Your task to perform on an android device: Search for flights from NYC to Sydney Image 0: 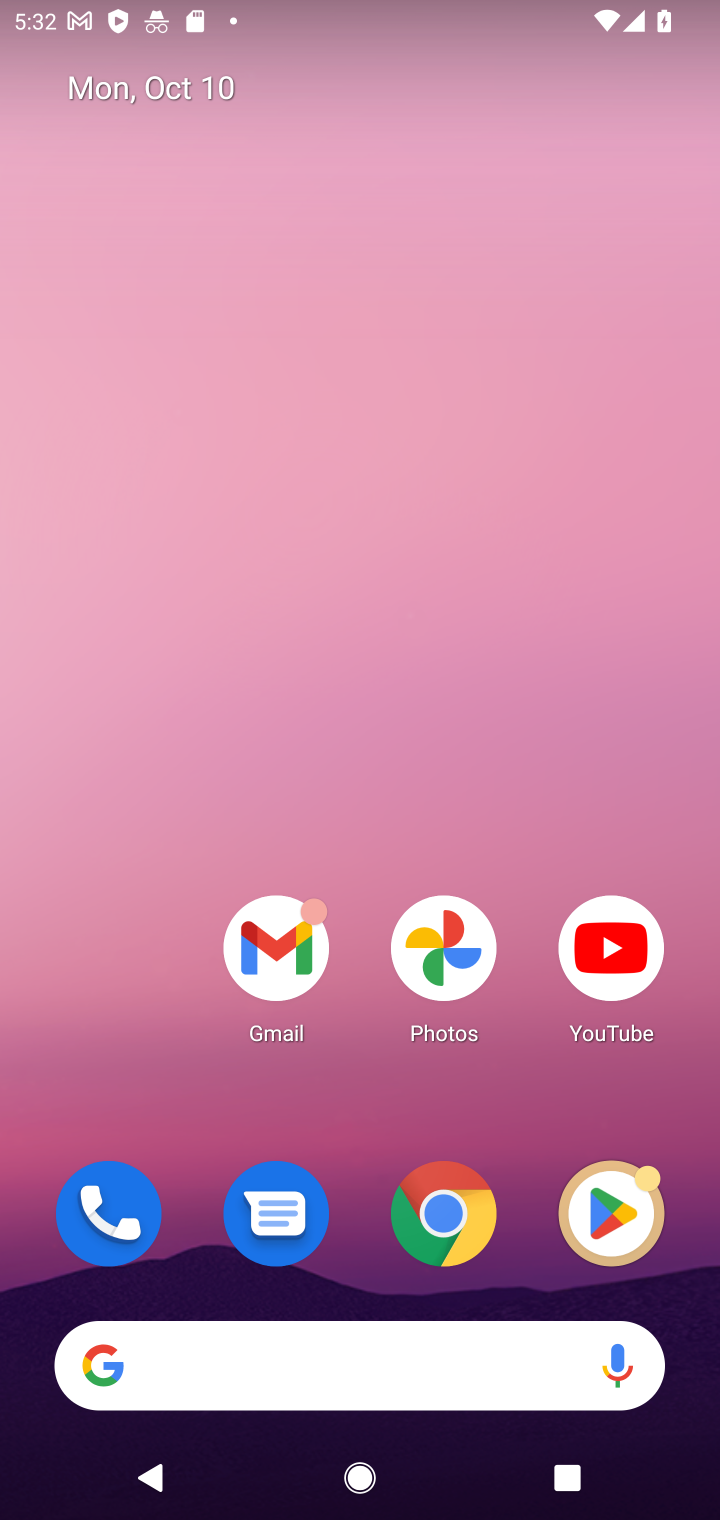
Step 0: click (317, 1355)
Your task to perform on an android device: Search for flights from NYC to Sydney Image 1: 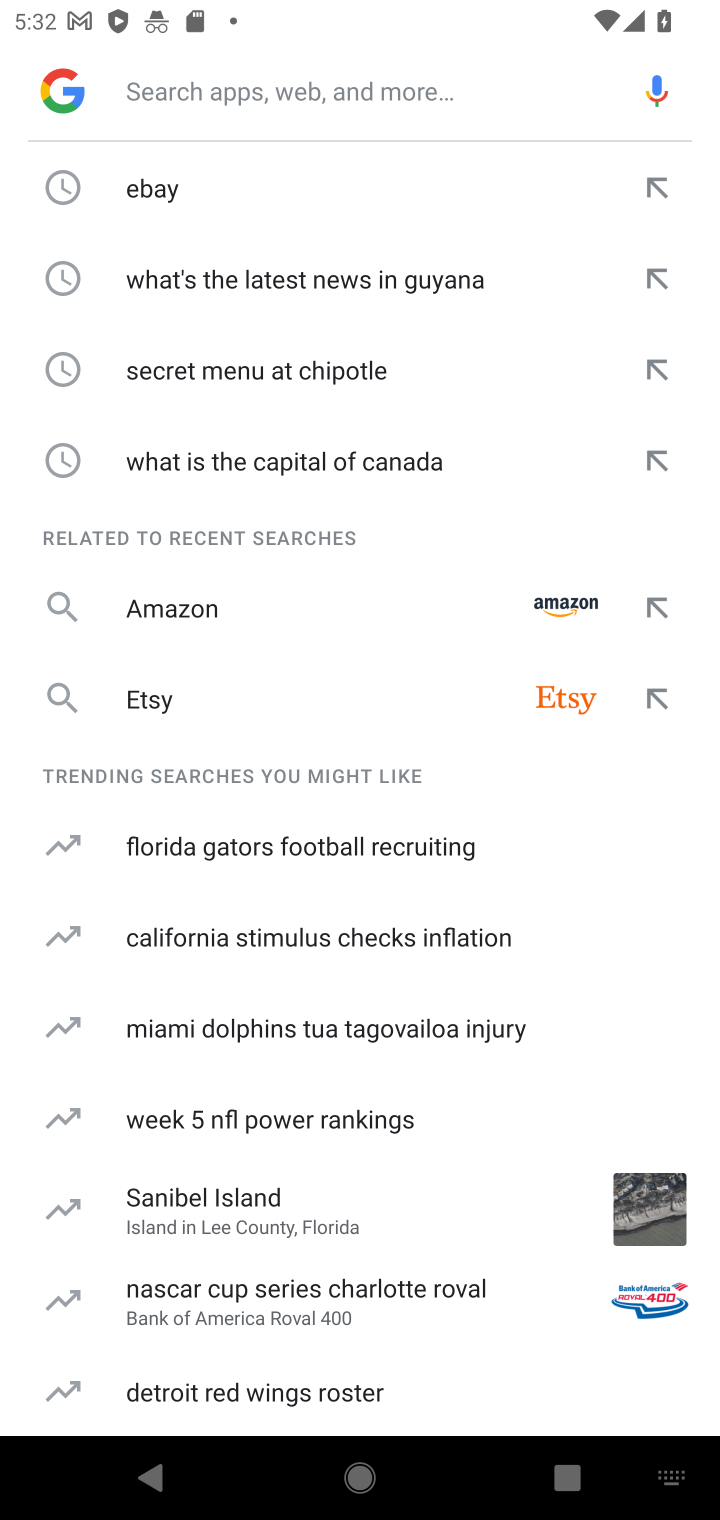
Step 1: click (281, 95)
Your task to perform on an android device: Search for flights from NYC to Sydney Image 2: 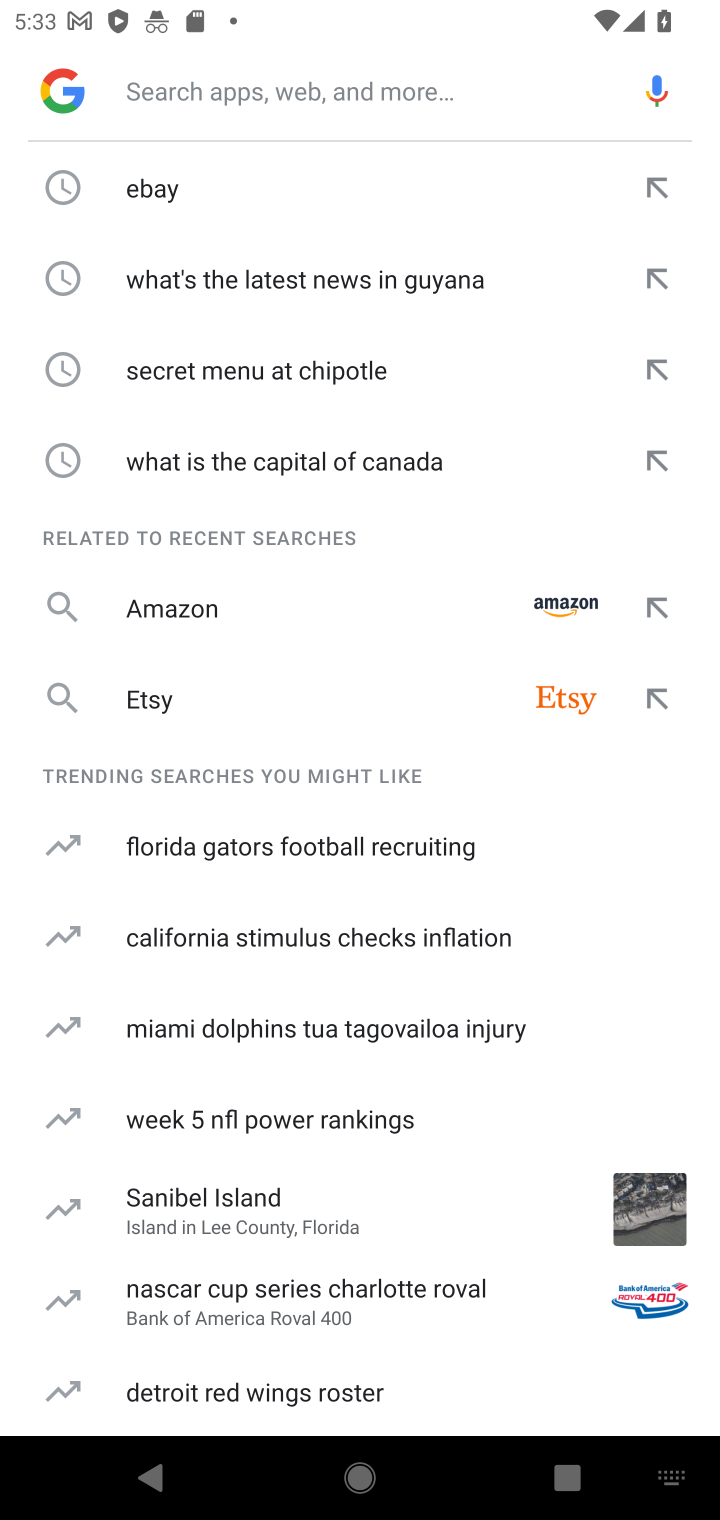
Step 2: type "flights from NYC to Sydney"
Your task to perform on an android device: Search for flights from NYC to Sydney Image 3: 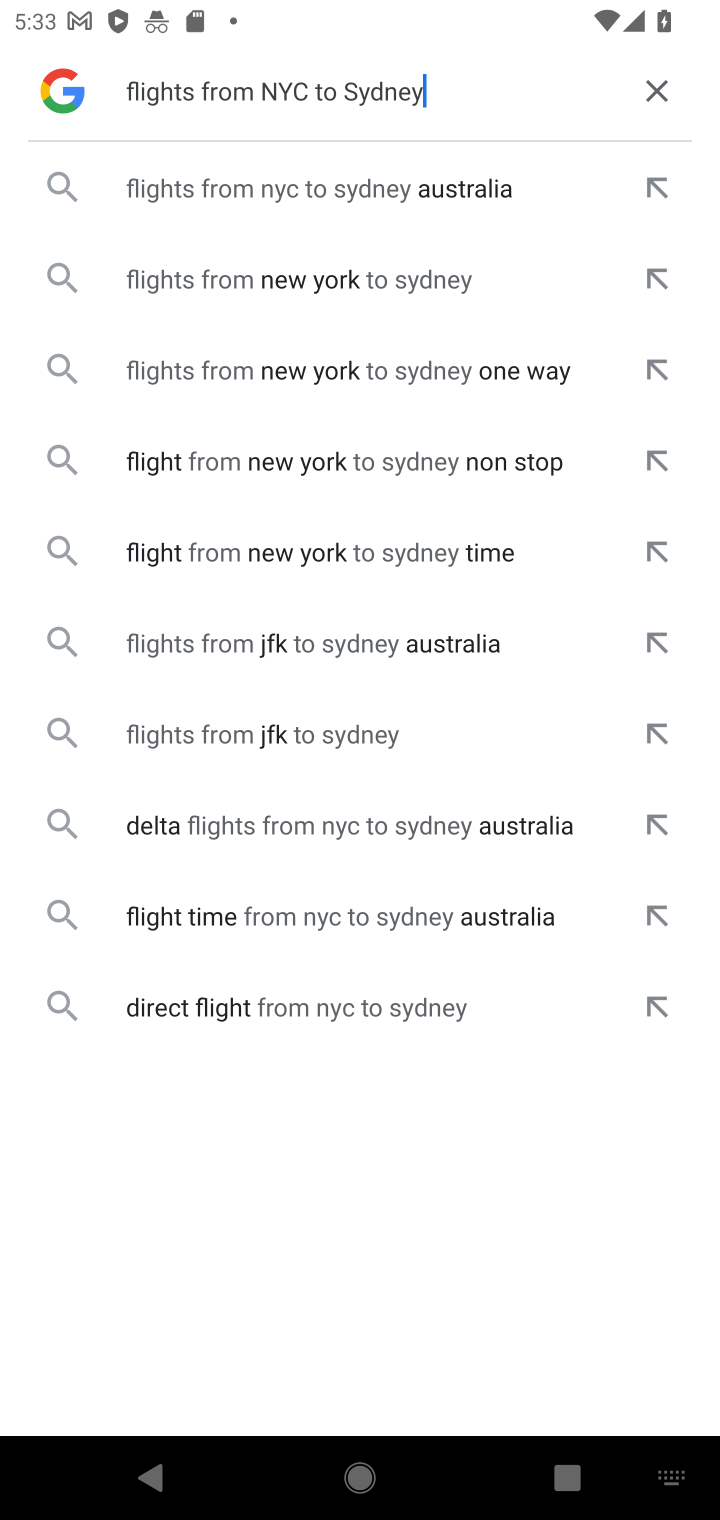
Step 3: click (331, 201)
Your task to perform on an android device: Search for flights from NYC to Sydney Image 4: 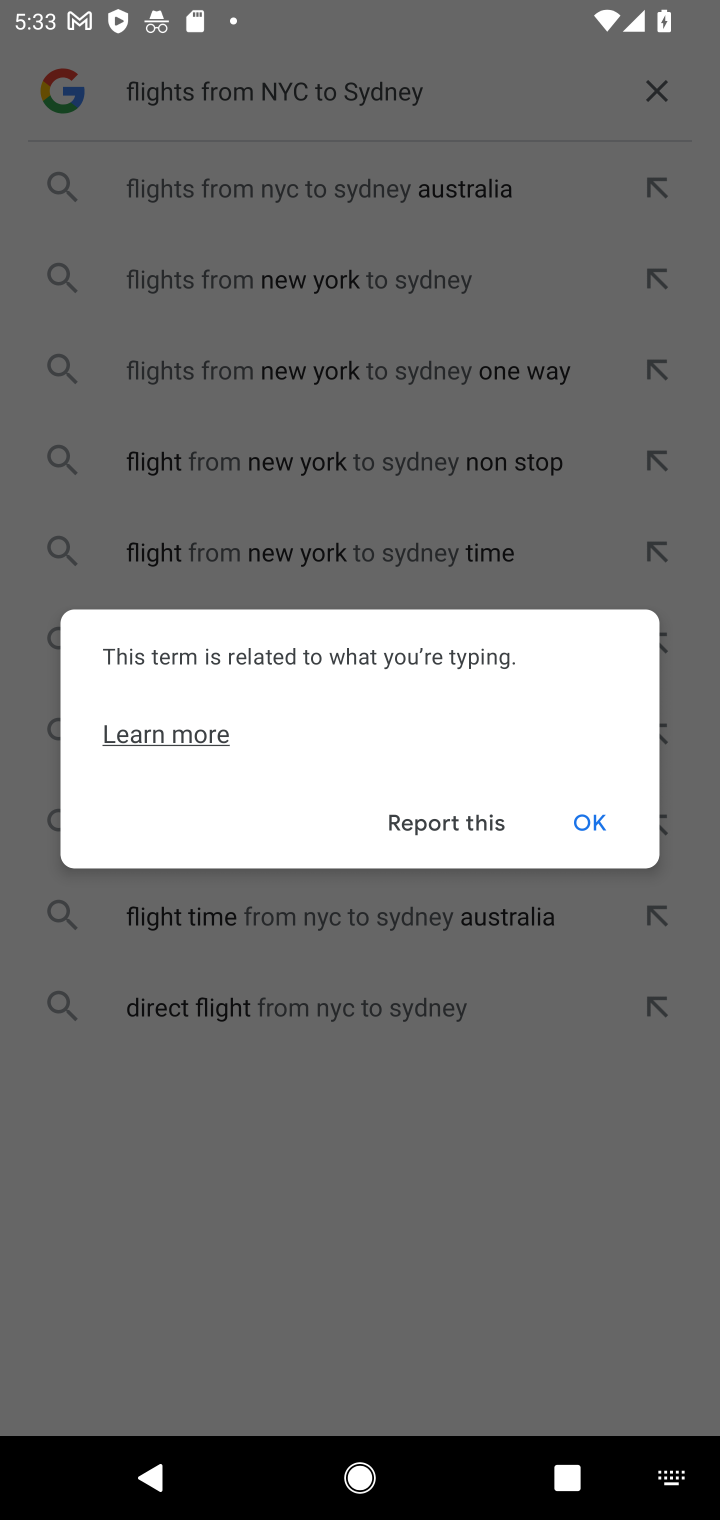
Step 4: click (595, 835)
Your task to perform on an android device: Search for flights from NYC to Sydney Image 5: 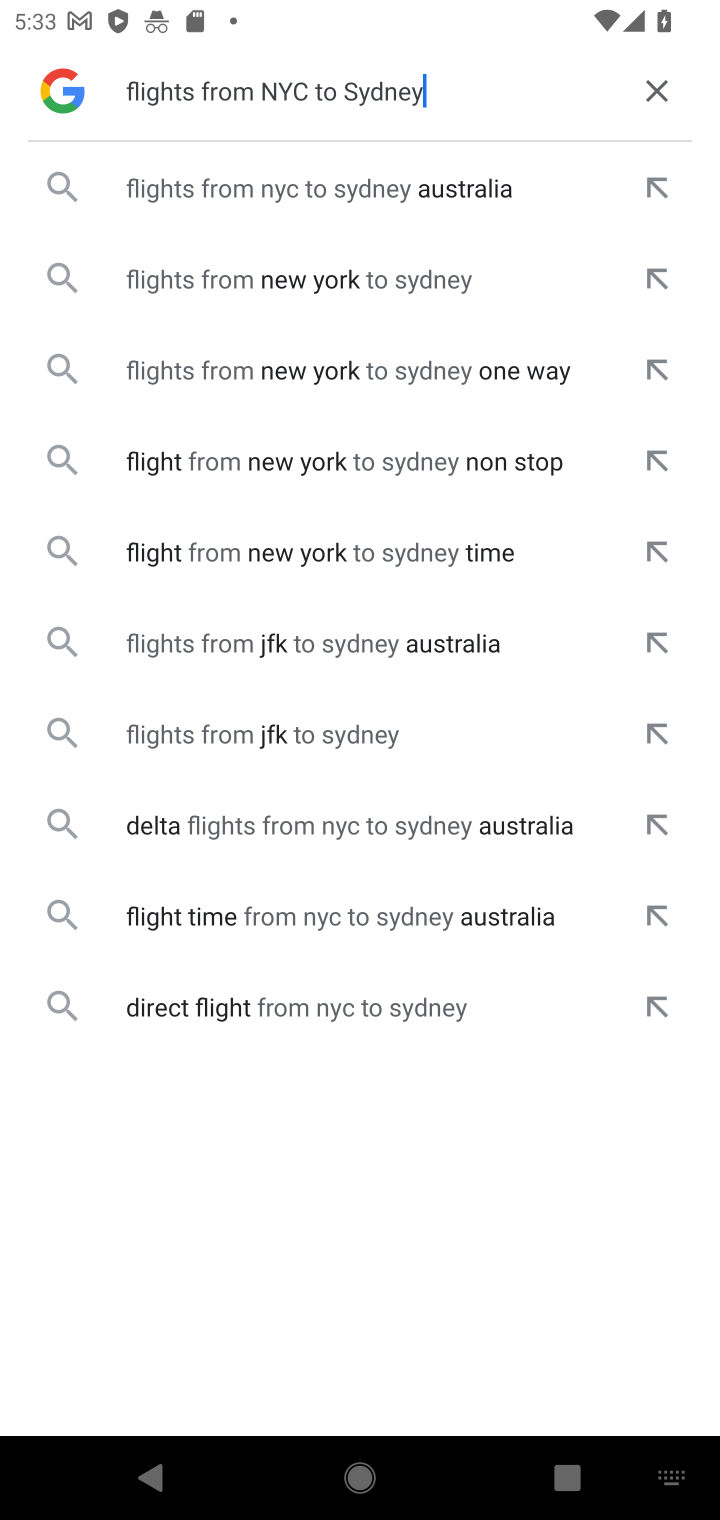
Step 5: click (340, 168)
Your task to perform on an android device: Search for flights from NYC to Sydney Image 6: 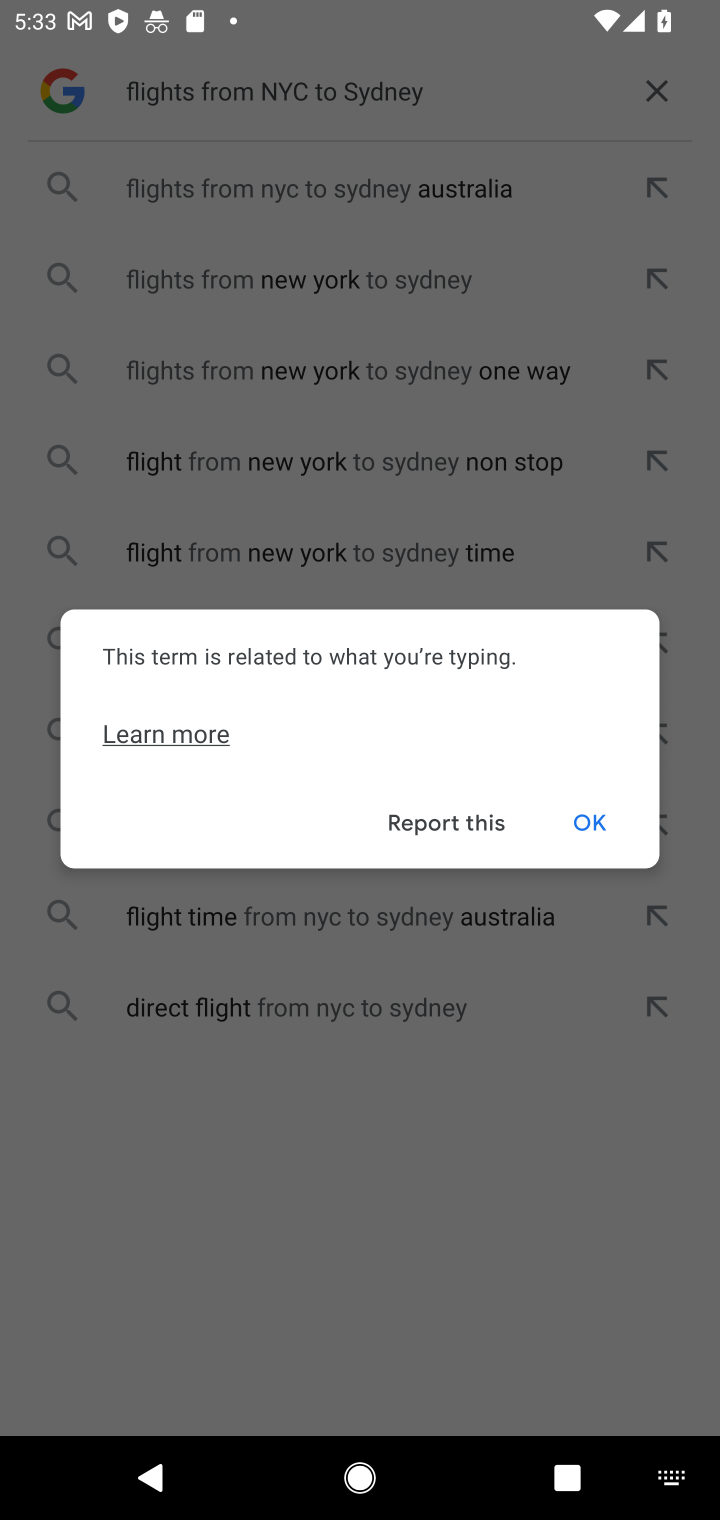
Step 6: click (602, 812)
Your task to perform on an android device: Search for flights from NYC to Sydney Image 7: 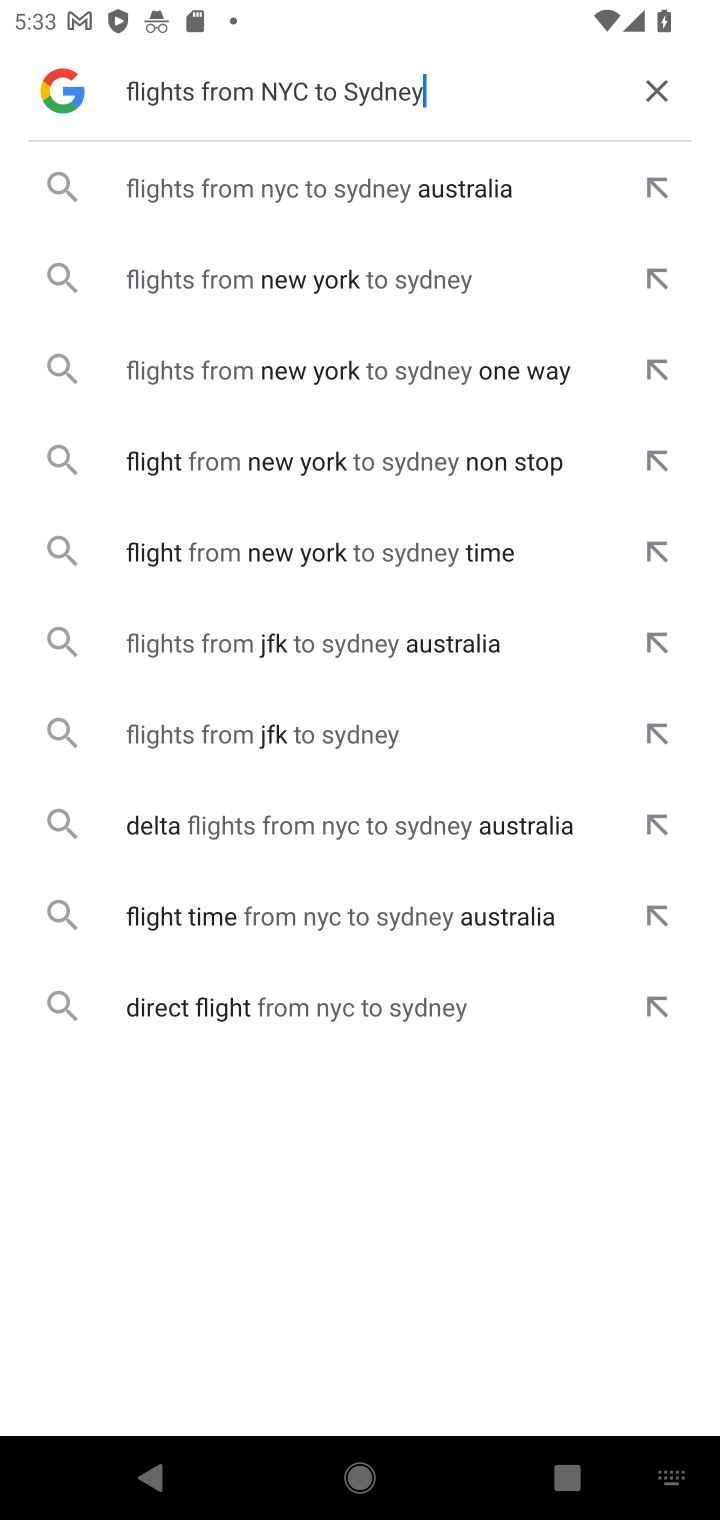
Step 7: click (319, 287)
Your task to perform on an android device: Search for flights from NYC to Sydney Image 8: 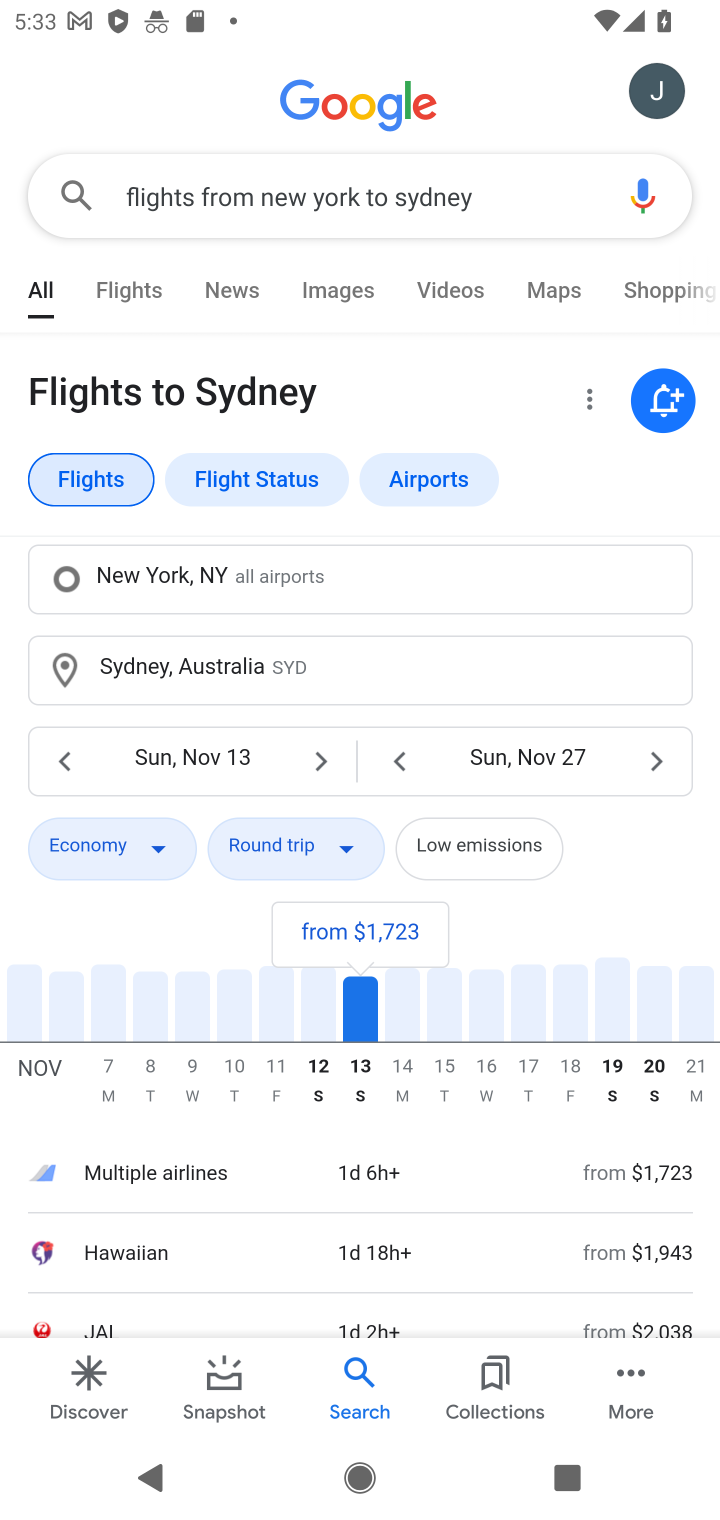
Step 8: task complete